Your task to perform on an android device: Show me popular games on the Play Store Image 0: 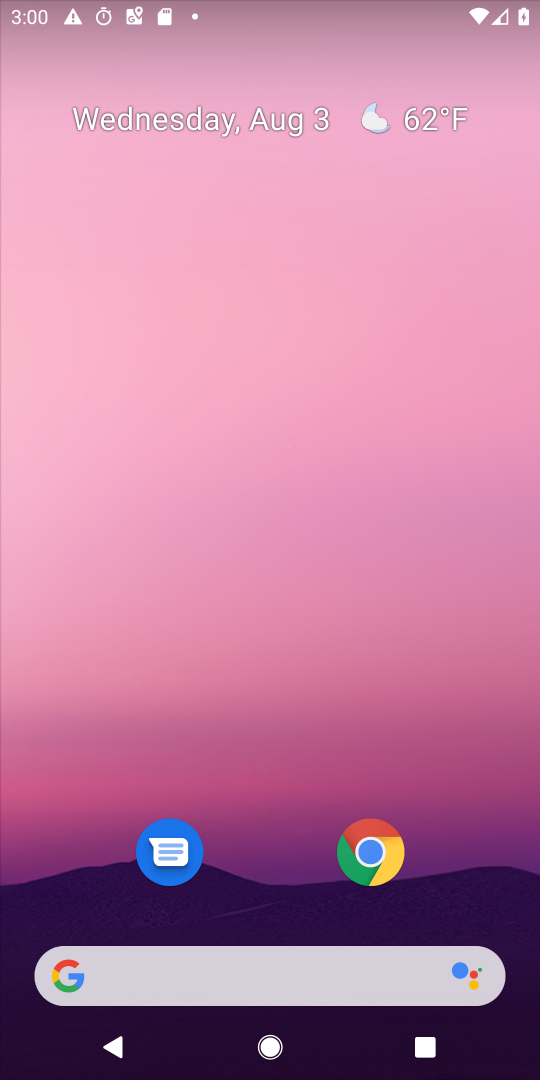
Step 0: drag from (523, 904) to (259, 16)
Your task to perform on an android device: Show me popular games on the Play Store Image 1: 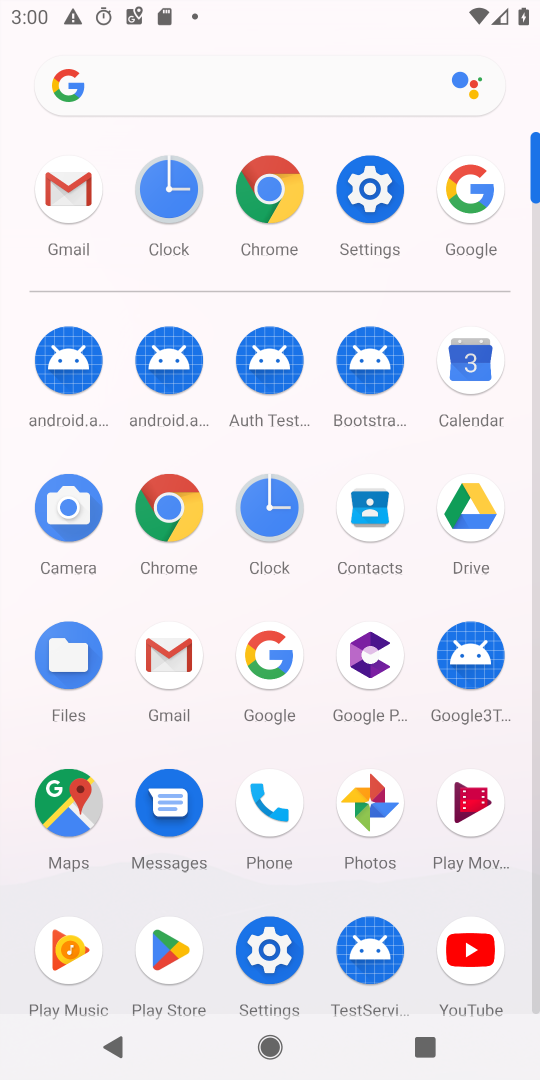
Step 1: click (140, 963)
Your task to perform on an android device: Show me popular games on the Play Store Image 2: 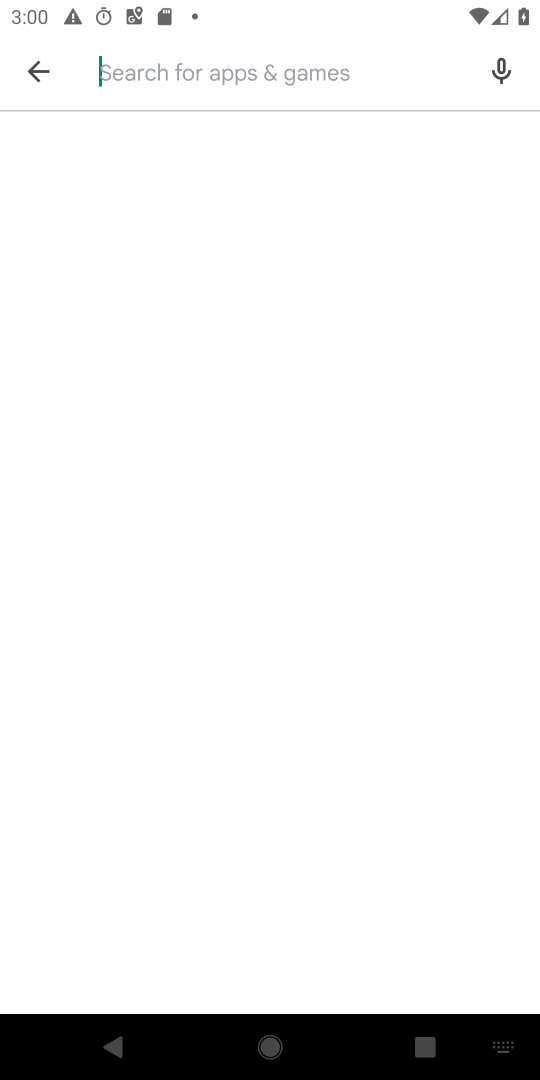
Step 2: task complete